Your task to perform on an android device: Go to Amazon Image 0: 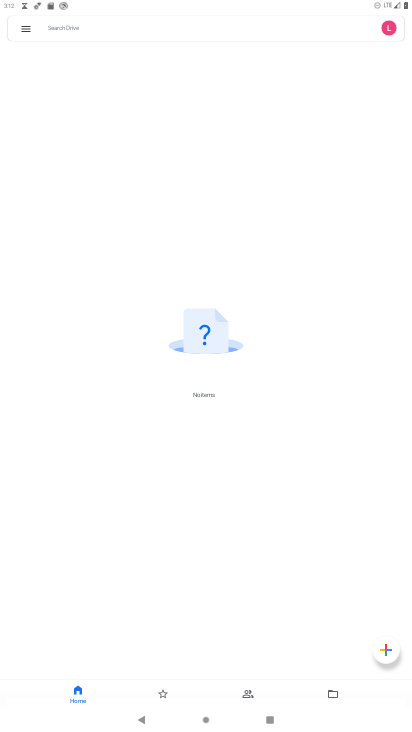
Step 0: press home button
Your task to perform on an android device: Go to Amazon Image 1: 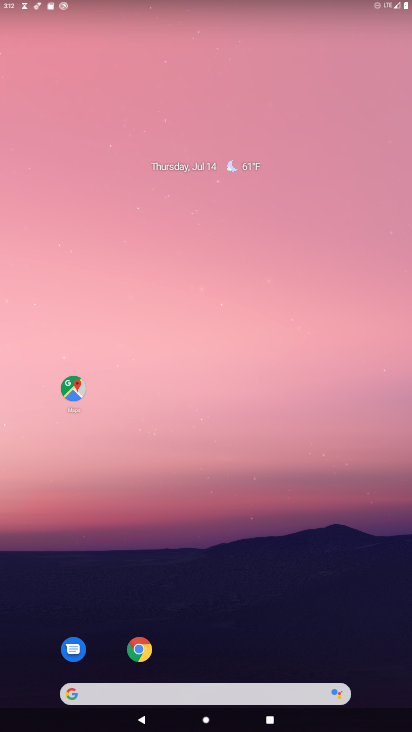
Step 1: drag from (243, 689) to (367, 14)
Your task to perform on an android device: Go to Amazon Image 2: 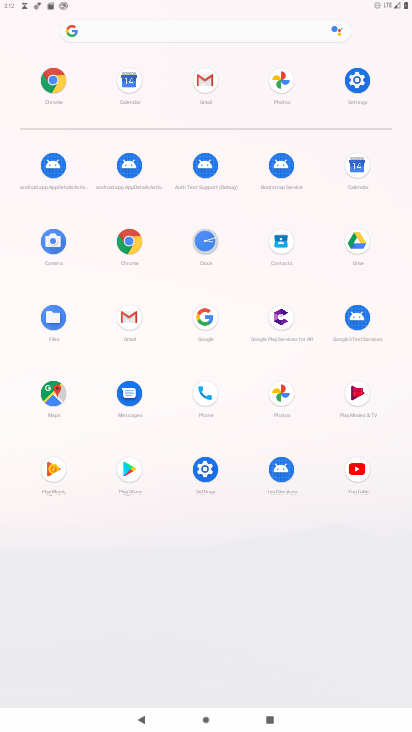
Step 2: click (127, 246)
Your task to perform on an android device: Go to Amazon Image 3: 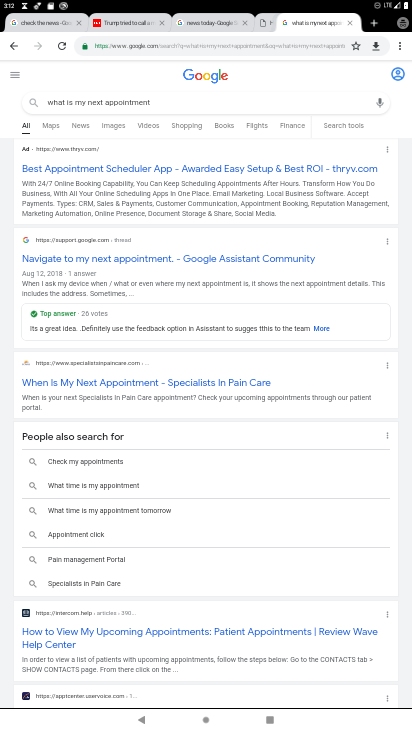
Step 3: click (294, 40)
Your task to perform on an android device: Go to Amazon Image 4: 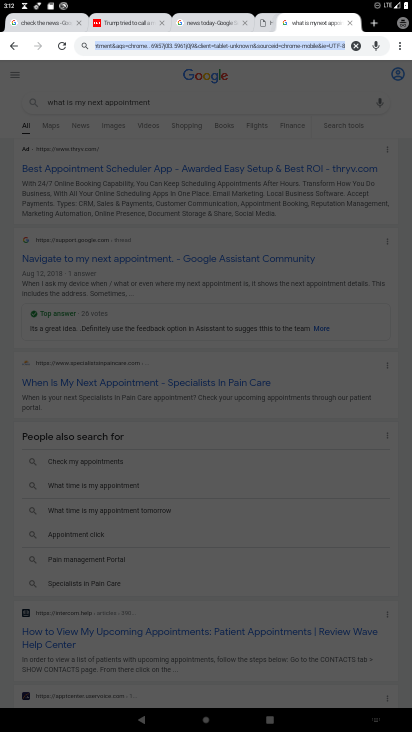
Step 4: type "amazon"
Your task to perform on an android device: Go to Amazon Image 5: 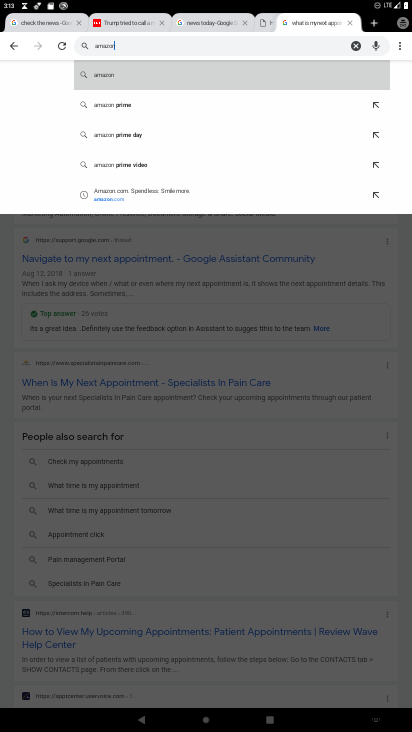
Step 5: click (159, 78)
Your task to perform on an android device: Go to Amazon Image 6: 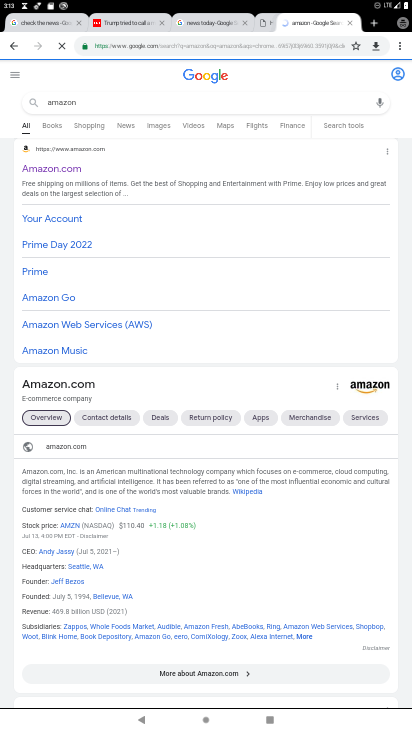
Step 6: click (71, 168)
Your task to perform on an android device: Go to Amazon Image 7: 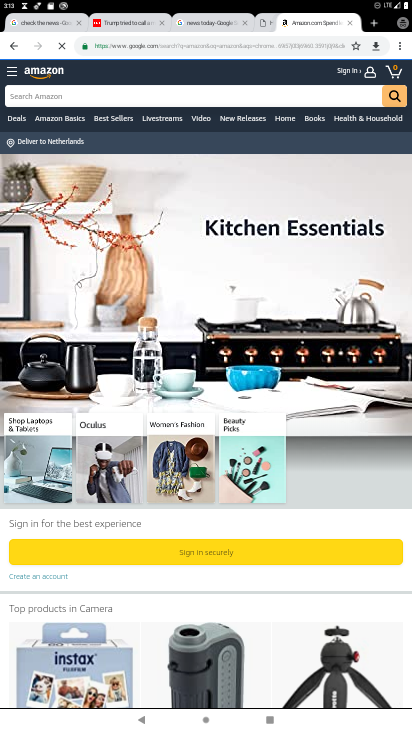
Step 7: task complete